Your task to perform on an android device: Open the phone app and click the voicemail tab. Image 0: 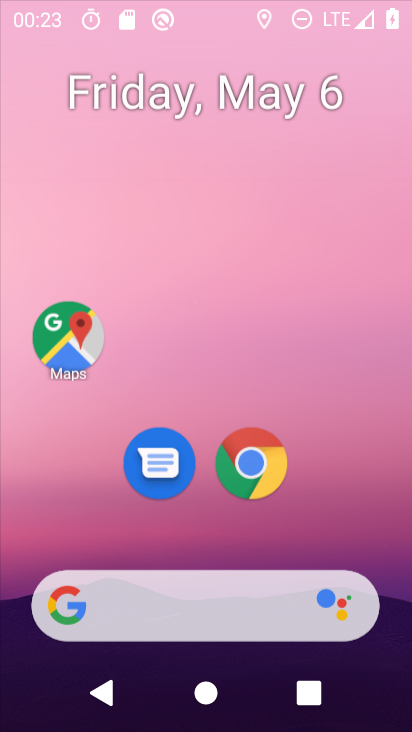
Step 0: drag from (210, 567) to (218, 187)
Your task to perform on an android device: Open the phone app and click the voicemail tab. Image 1: 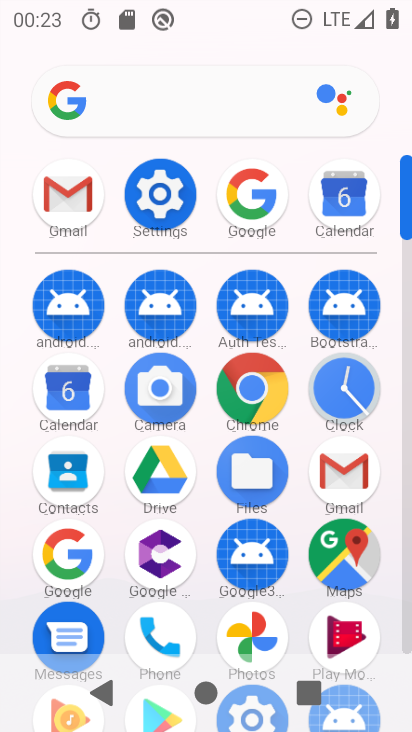
Step 1: click (164, 625)
Your task to perform on an android device: Open the phone app and click the voicemail tab. Image 2: 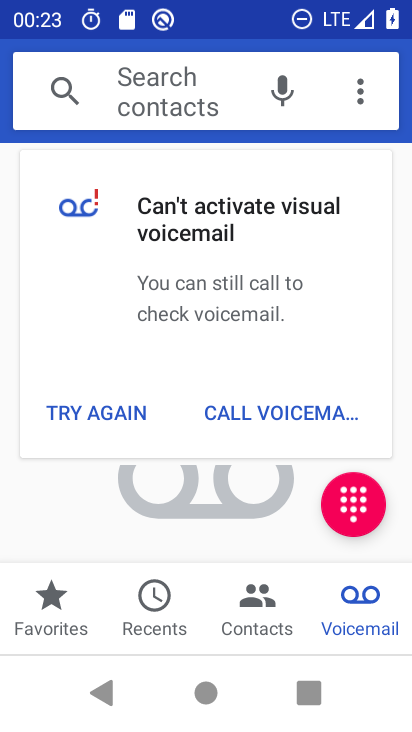
Step 2: click (363, 617)
Your task to perform on an android device: Open the phone app and click the voicemail tab. Image 3: 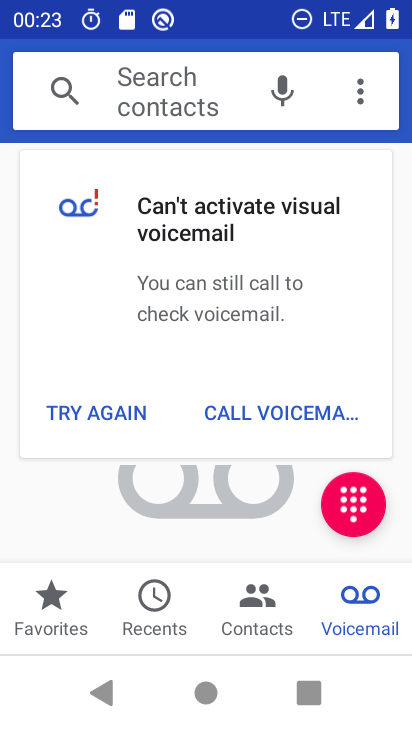
Step 3: task complete